Your task to perform on an android device: Open the stopwatch Image 0: 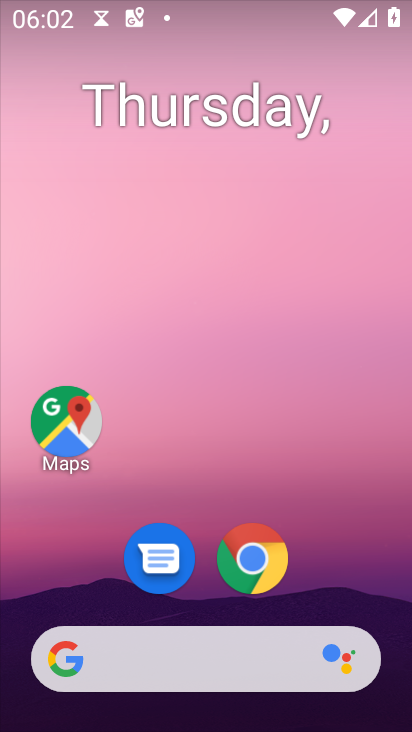
Step 0: drag from (293, 547) to (301, 156)
Your task to perform on an android device: Open the stopwatch Image 1: 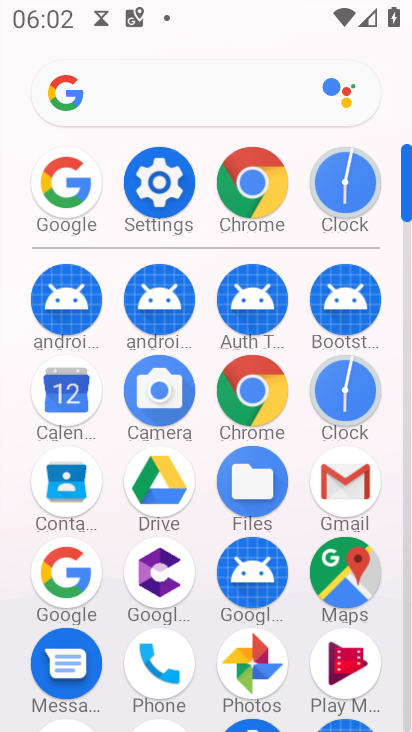
Step 1: drag from (310, 544) to (250, 80)
Your task to perform on an android device: Open the stopwatch Image 2: 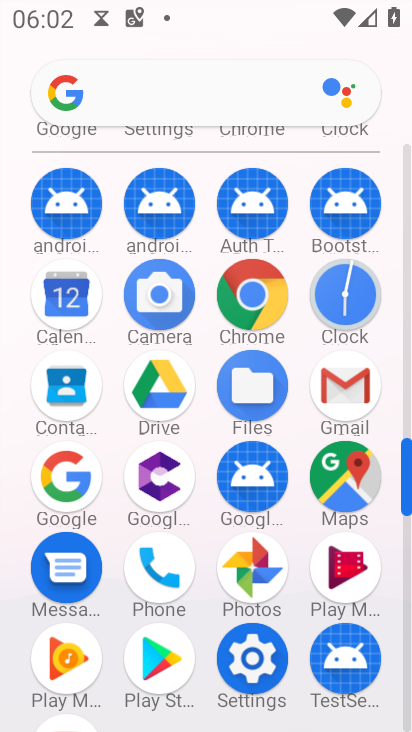
Step 2: drag from (284, 428) to (267, 147)
Your task to perform on an android device: Open the stopwatch Image 3: 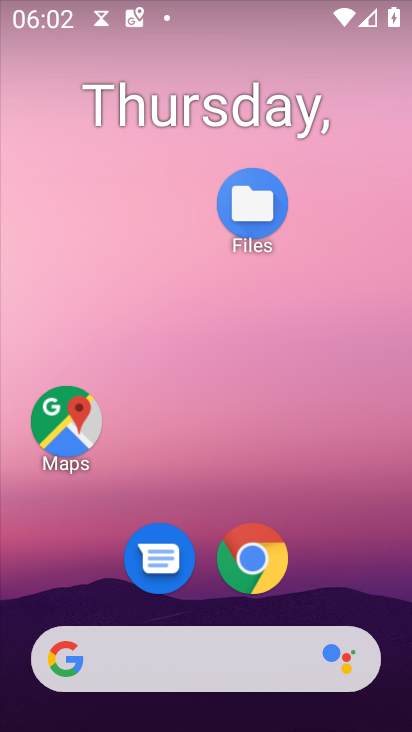
Step 3: drag from (303, 301) to (303, 151)
Your task to perform on an android device: Open the stopwatch Image 4: 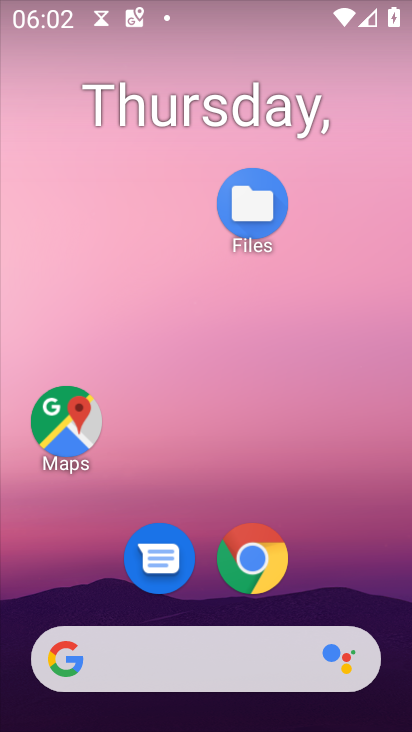
Step 4: click (321, 200)
Your task to perform on an android device: Open the stopwatch Image 5: 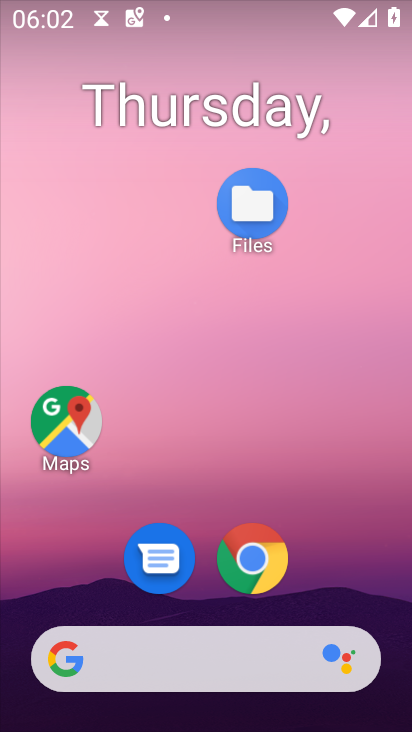
Step 5: drag from (306, 385) to (305, 114)
Your task to perform on an android device: Open the stopwatch Image 6: 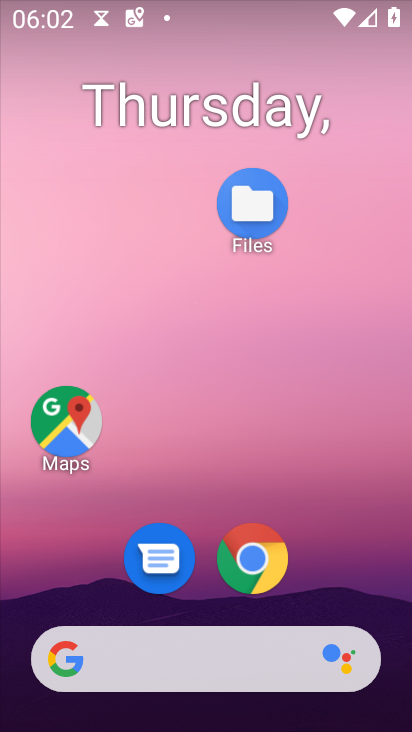
Step 6: drag from (282, 116) to (282, 48)
Your task to perform on an android device: Open the stopwatch Image 7: 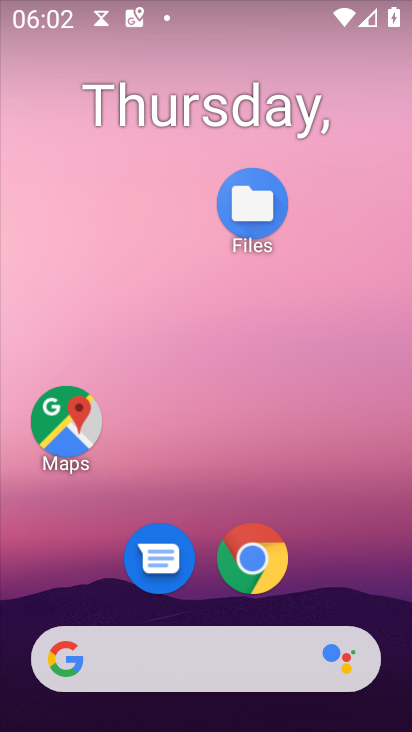
Step 7: drag from (301, 606) to (288, 162)
Your task to perform on an android device: Open the stopwatch Image 8: 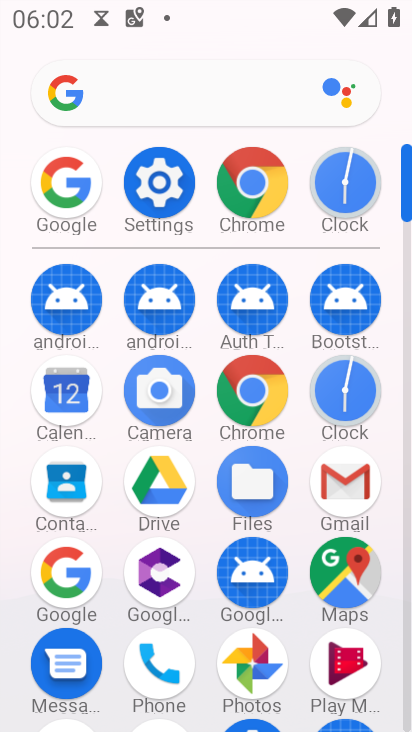
Step 8: click (350, 423)
Your task to perform on an android device: Open the stopwatch Image 9: 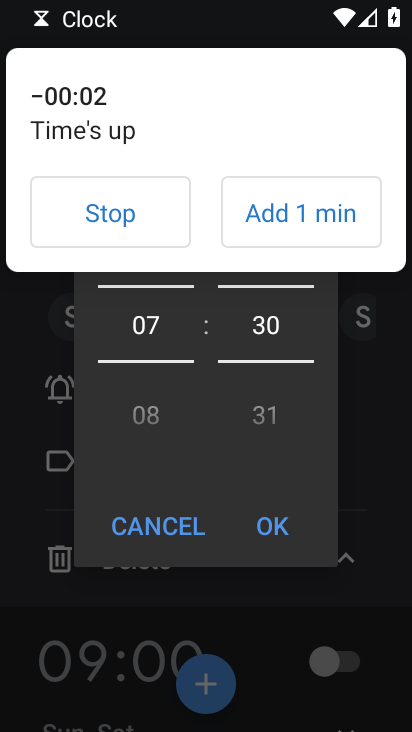
Step 9: click (175, 224)
Your task to perform on an android device: Open the stopwatch Image 10: 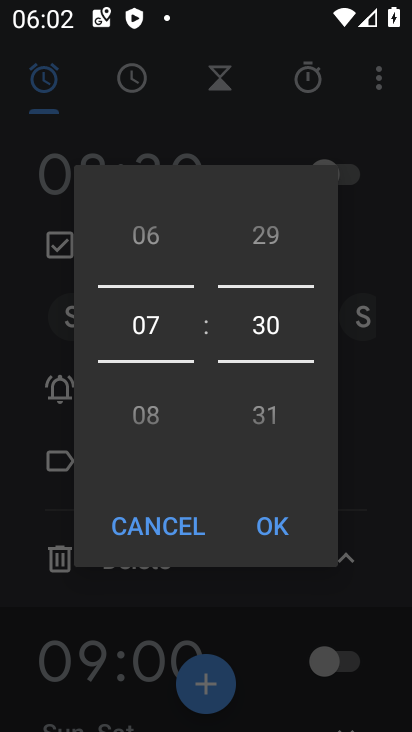
Step 10: click (168, 530)
Your task to perform on an android device: Open the stopwatch Image 11: 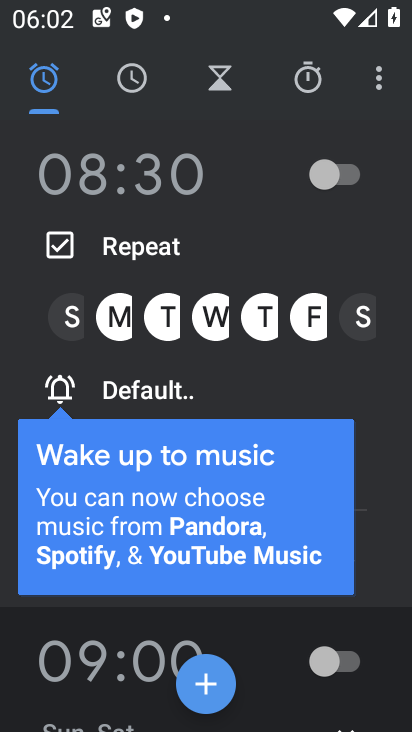
Step 11: click (298, 81)
Your task to perform on an android device: Open the stopwatch Image 12: 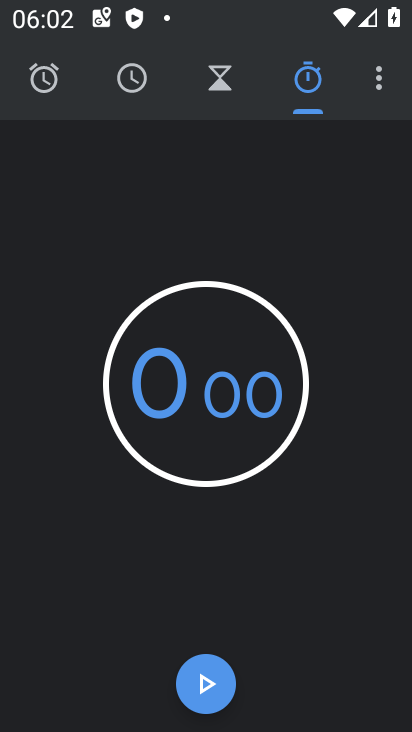
Step 12: click (298, 81)
Your task to perform on an android device: Open the stopwatch Image 13: 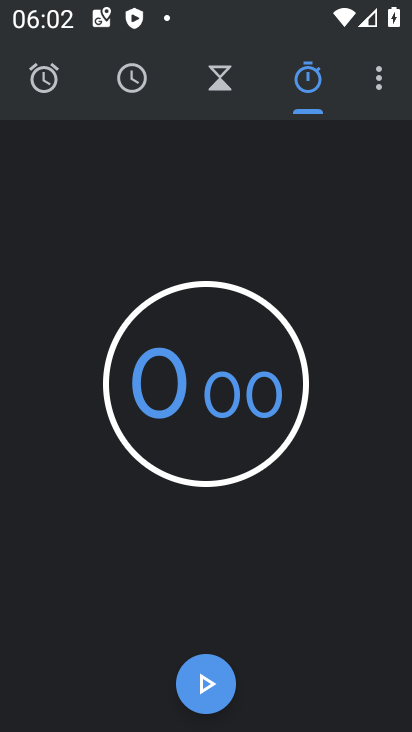
Step 13: task complete